Your task to perform on an android device: Go to accessibility settings Image 0: 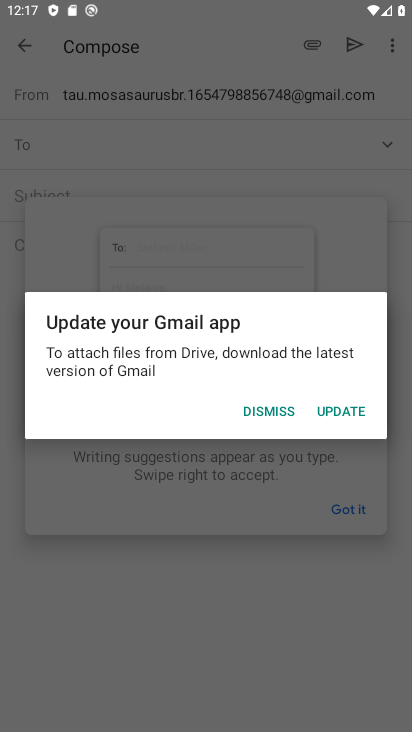
Step 0: press home button
Your task to perform on an android device: Go to accessibility settings Image 1: 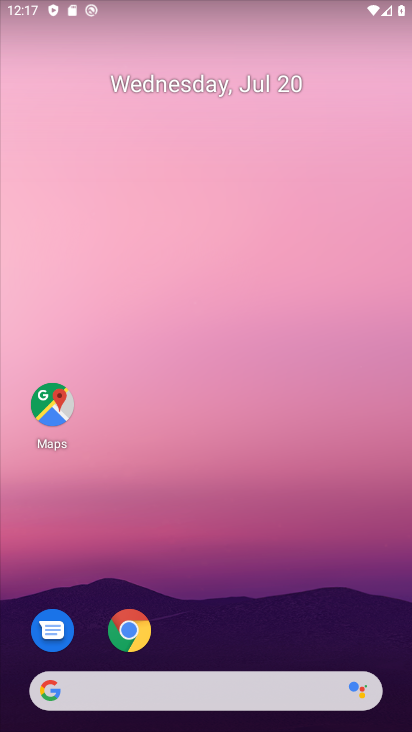
Step 1: drag from (243, 570) to (212, 156)
Your task to perform on an android device: Go to accessibility settings Image 2: 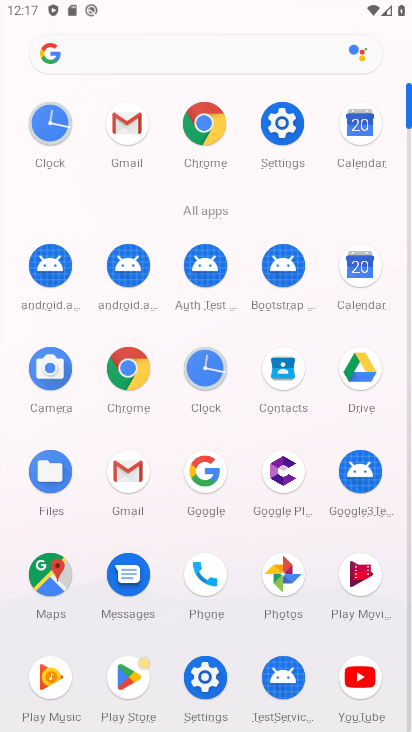
Step 2: click (277, 124)
Your task to perform on an android device: Go to accessibility settings Image 3: 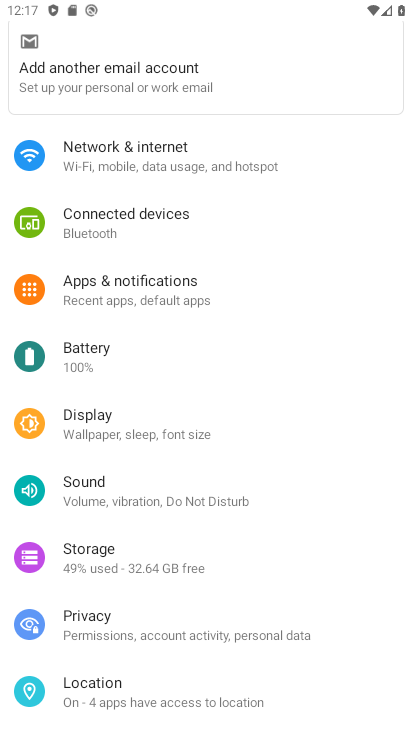
Step 3: drag from (240, 649) to (238, 286)
Your task to perform on an android device: Go to accessibility settings Image 4: 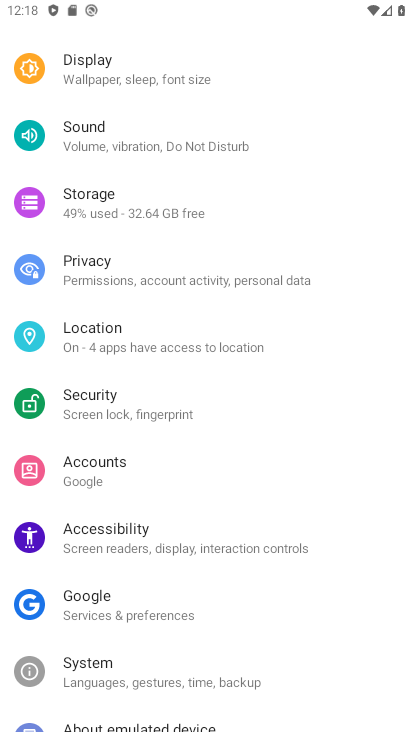
Step 4: click (108, 529)
Your task to perform on an android device: Go to accessibility settings Image 5: 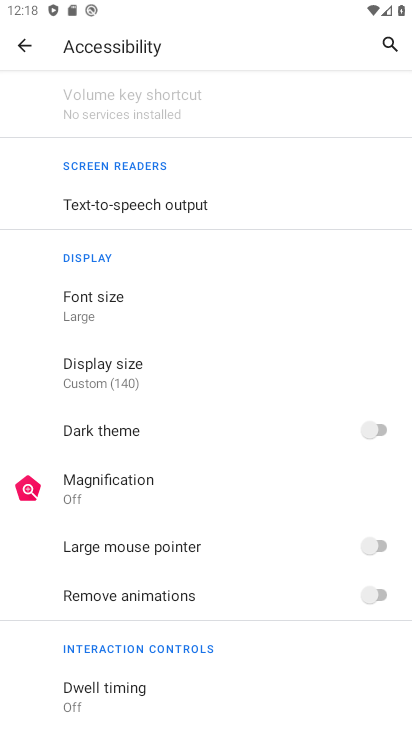
Step 5: task complete